Your task to perform on an android device: Go to sound settings Image 0: 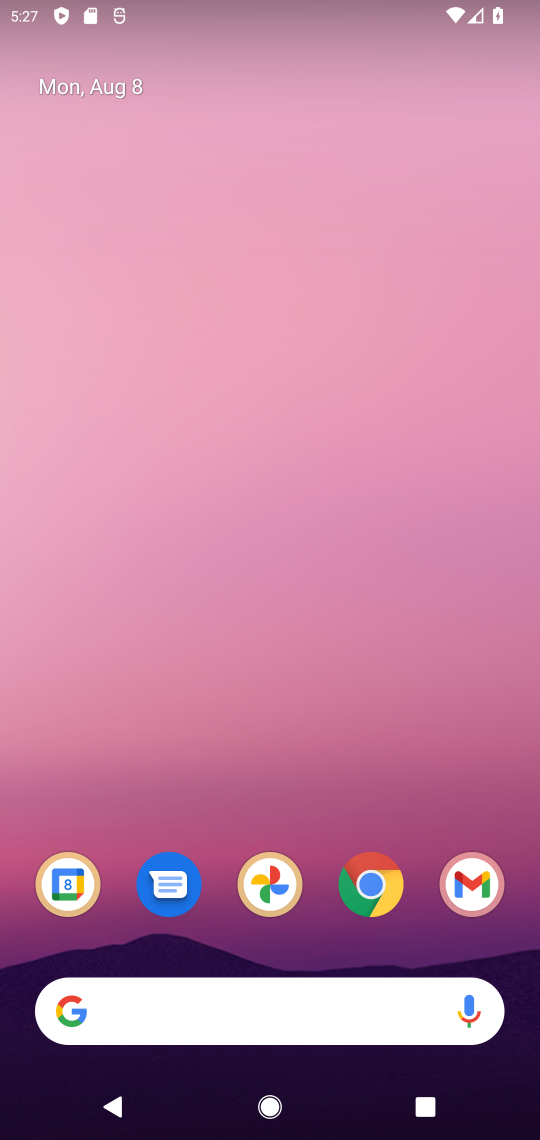
Step 0: drag from (319, 849) to (247, 96)
Your task to perform on an android device: Go to sound settings Image 1: 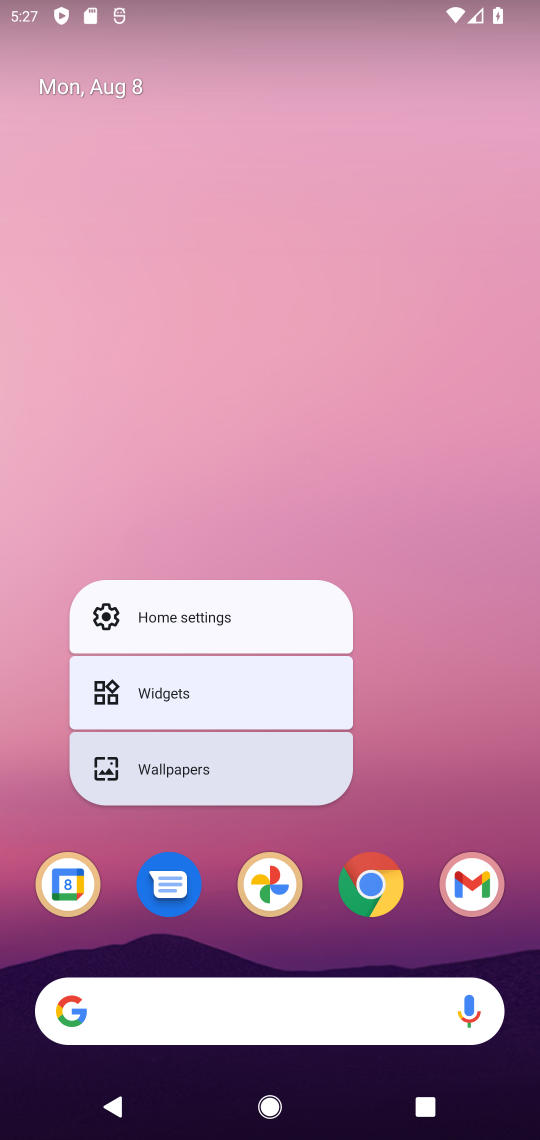
Step 1: drag from (433, 955) to (335, 181)
Your task to perform on an android device: Go to sound settings Image 2: 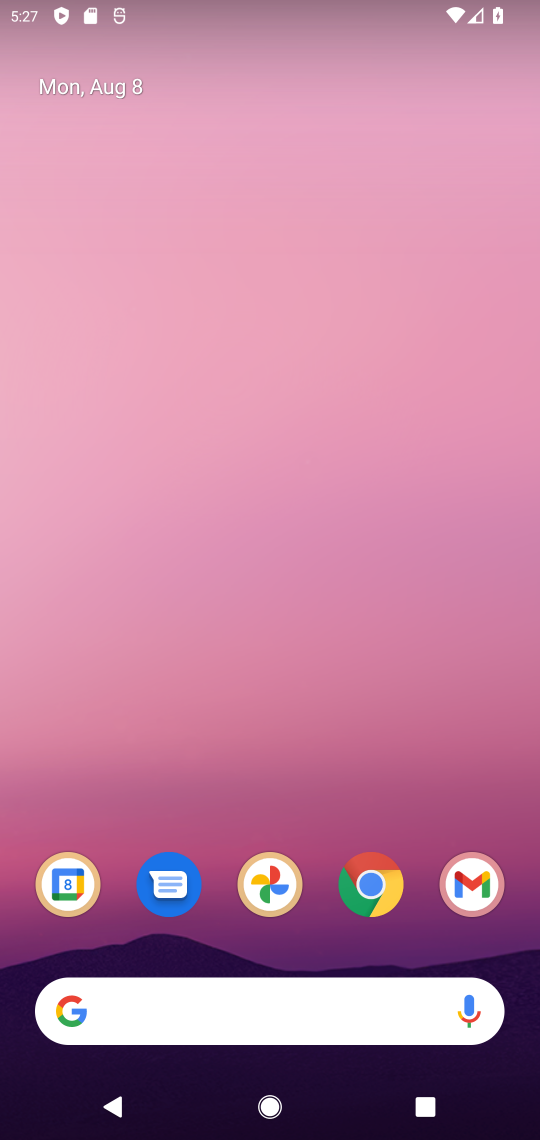
Step 2: drag from (324, 826) to (252, 147)
Your task to perform on an android device: Go to sound settings Image 3: 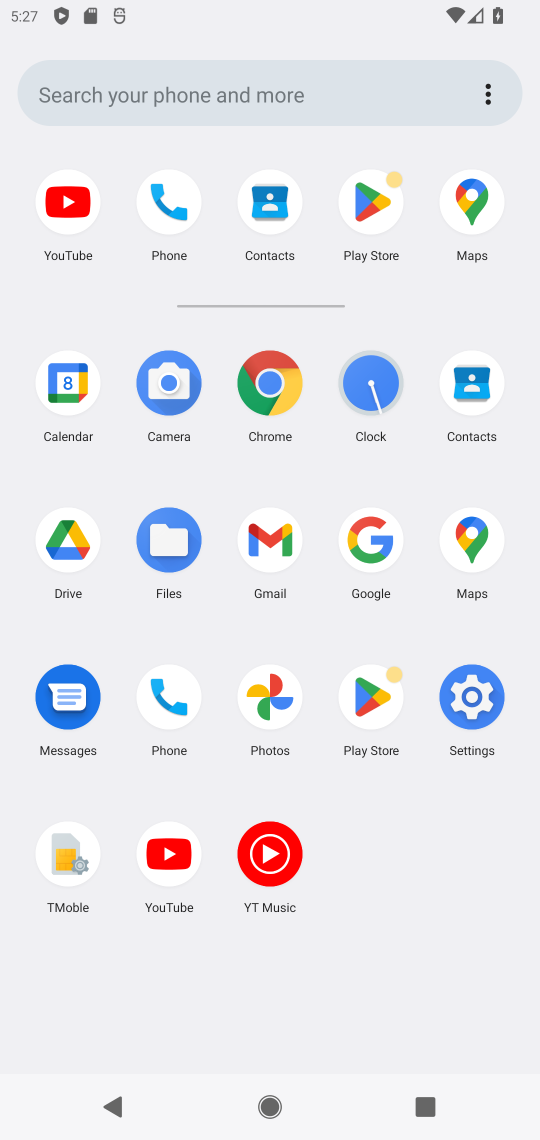
Step 3: click (476, 718)
Your task to perform on an android device: Go to sound settings Image 4: 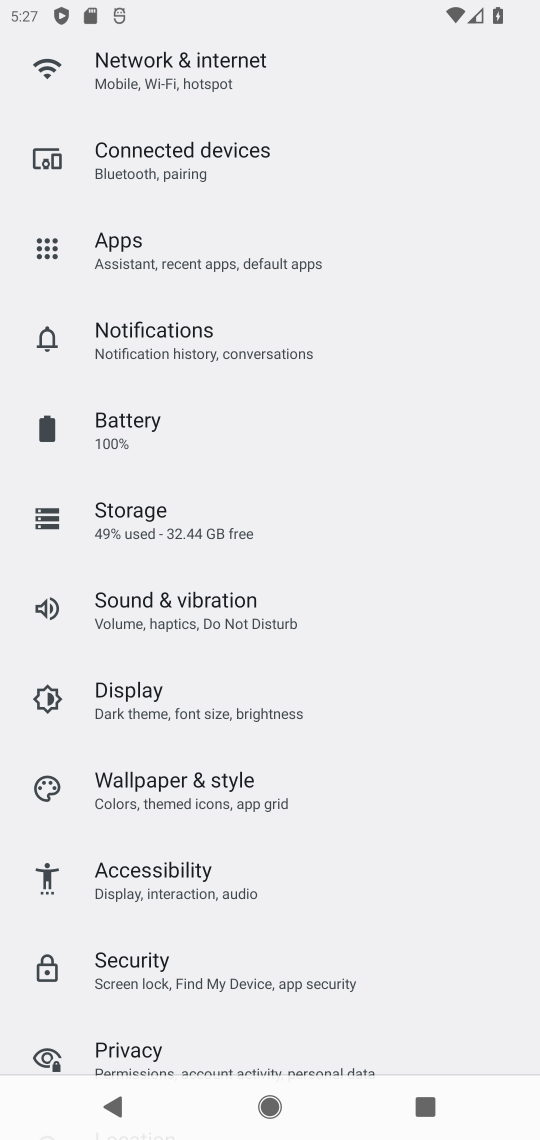
Step 4: click (237, 614)
Your task to perform on an android device: Go to sound settings Image 5: 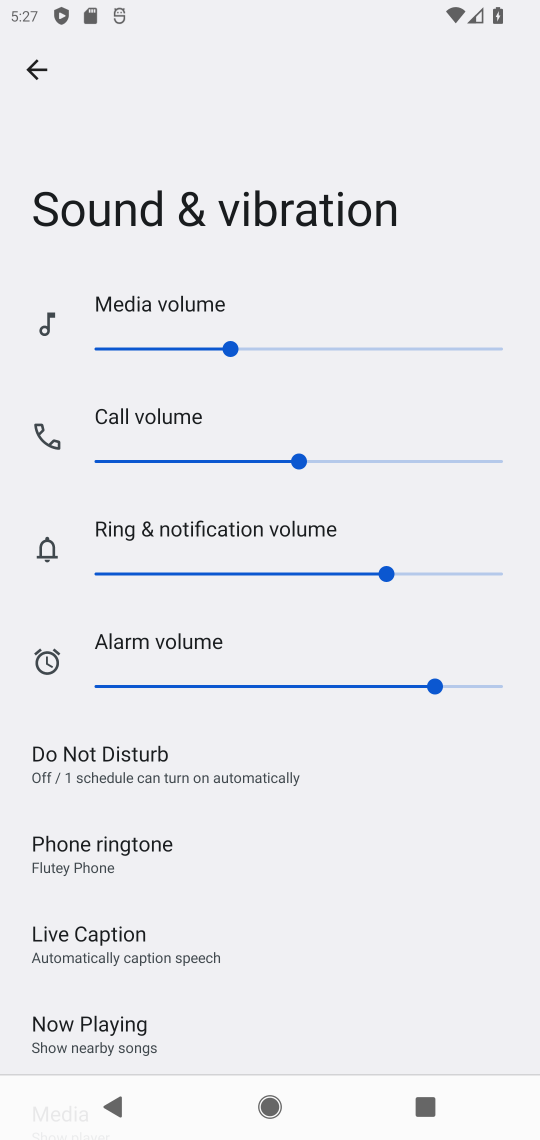
Step 5: task complete